Your task to perform on an android device: check android version Image 0: 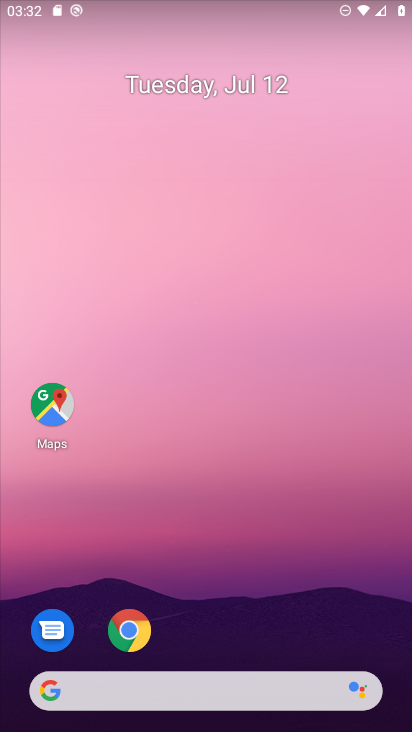
Step 0: drag from (359, 631) to (338, 375)
Your task to perform on an android device: check android version Image 1: 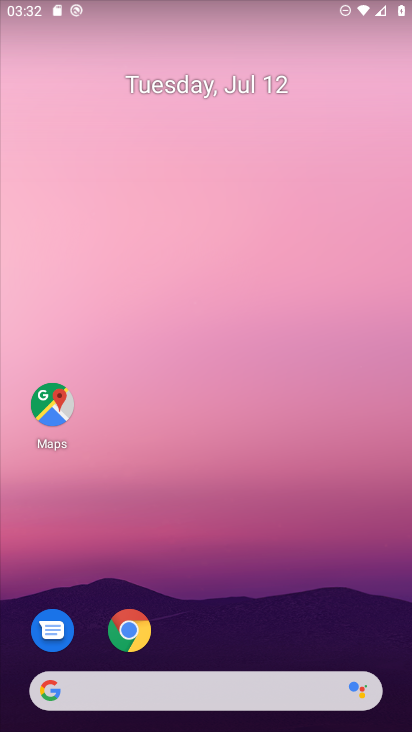
Step 1: drag from (357, 619) to (281, 135)
Your task to perform on an android device: check android version Image 2: 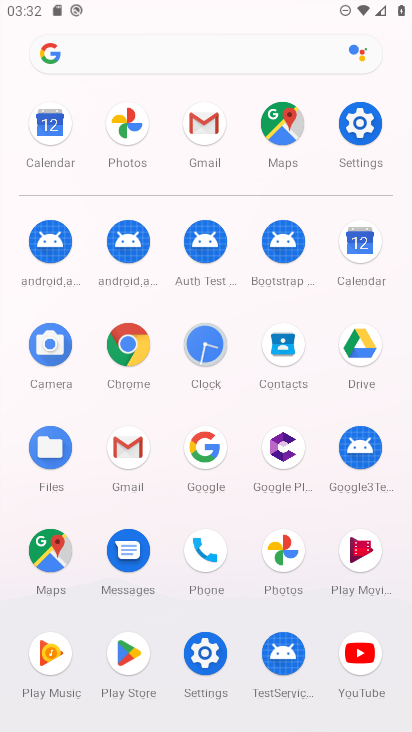
Step 2: click (206, 651)
Your task to perform on an android device: check android version Image 3: 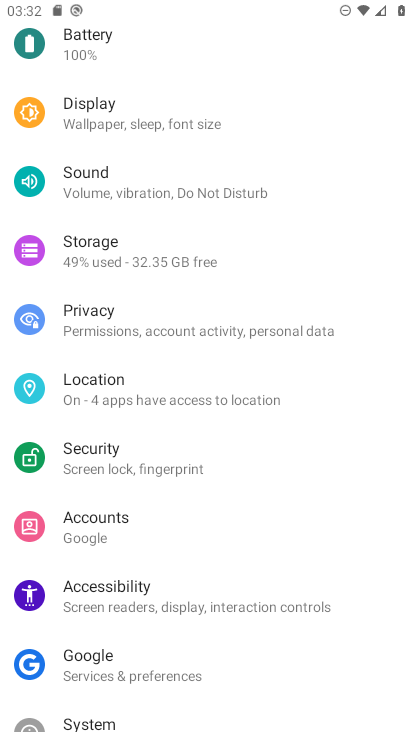
Step 3: drag from (339, 688) to (345, 282)
Your task to perform on an android device: check android version Image 4: 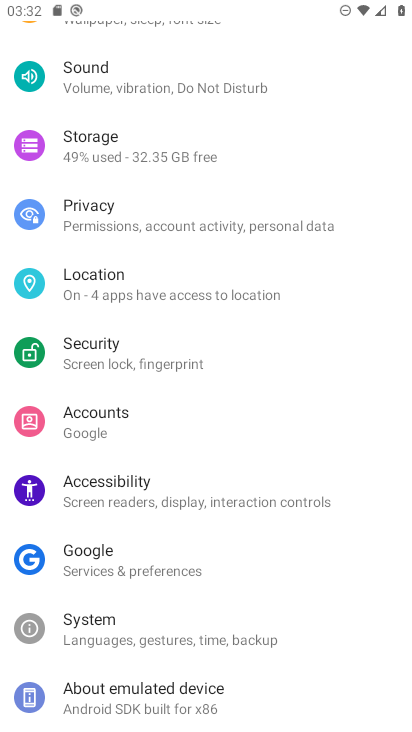
Step 4: click (140, 695)
Your task to perform on an android device: check android version Image 5: 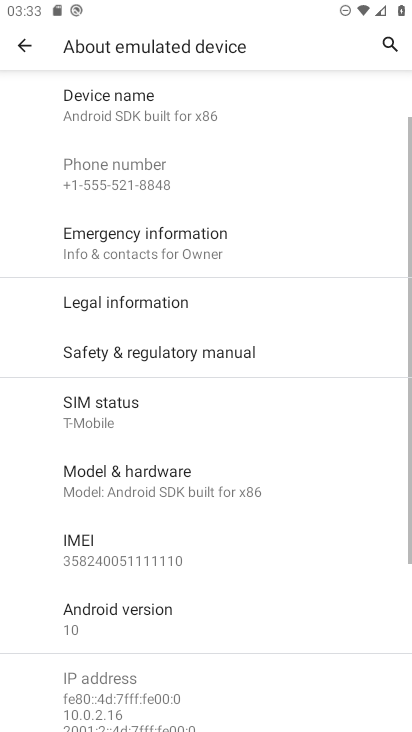
Step 5: click (120, 617)
Your task to perform on an android device: check android version Image 6: 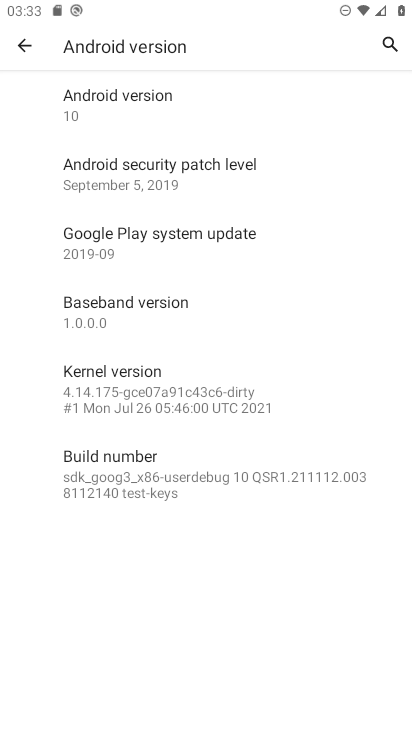
Step 6: click (98, 105)
Your task to perform on an android device: check android version Image 7: 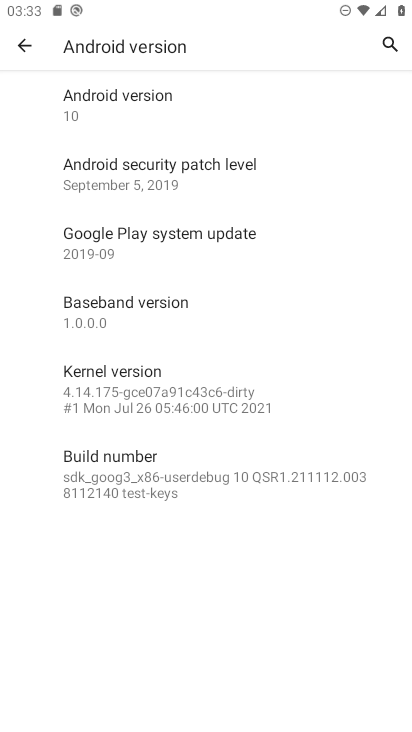
Step 7: task complete